Your task to perform on an android device: Show me recent news Image 0: 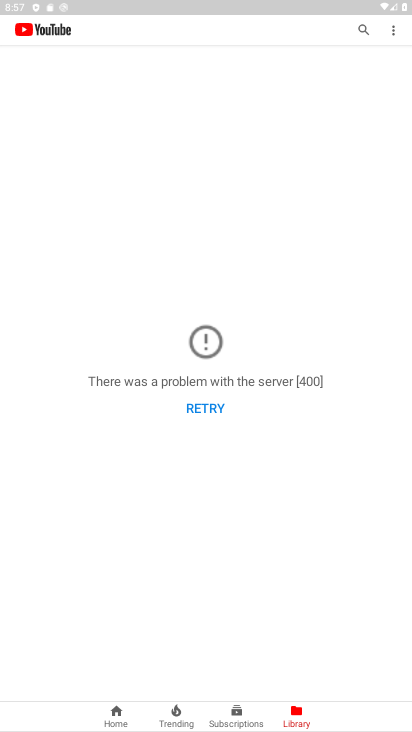
Step 0: press home button
Your task to perform on an android device: Show me recent news Image 1: 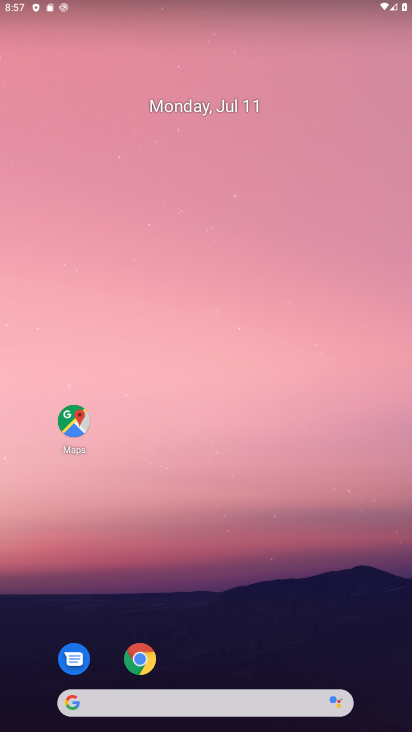
Step 1: task complete